Your task to perform on an android device: add a contact in the contacts app Image 0: 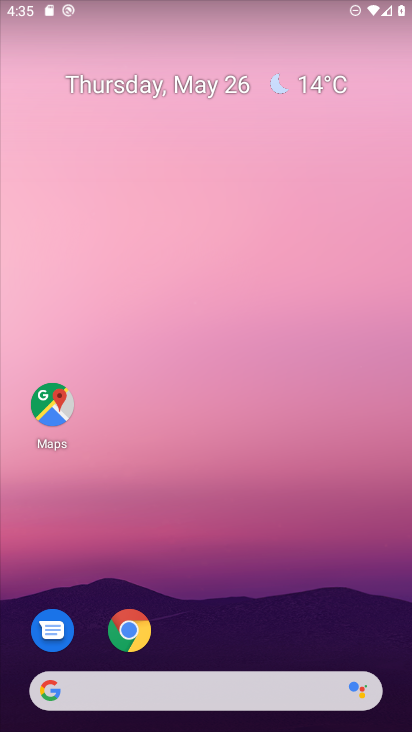
Step 0: drag from (257, 624) to (207, 231)
Your task to perform on an android device: add a contact in the contacts app Image 1: 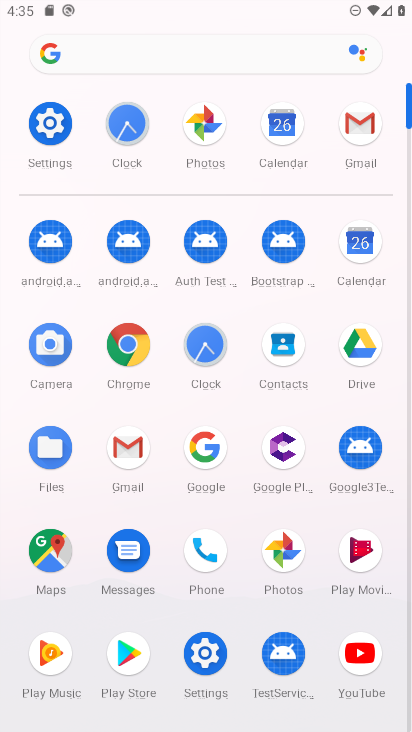
Step 1: click (283, 346)
Your task to perform on an android device: add a contact in the contacts app Image 2: 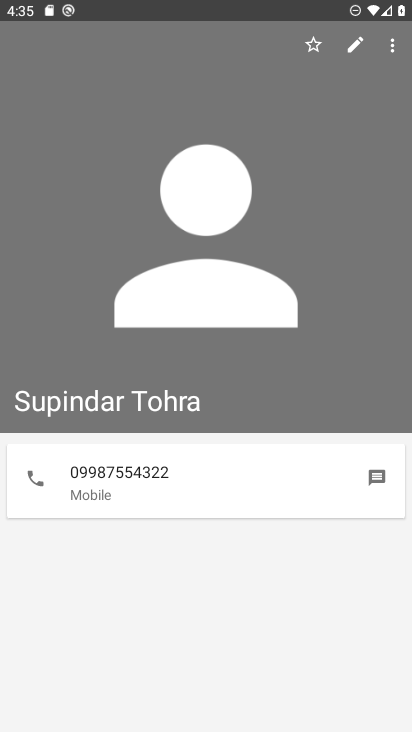
Step 2: press back button
Your task to perform on an android device: add a contact in the contacts app Image 3: 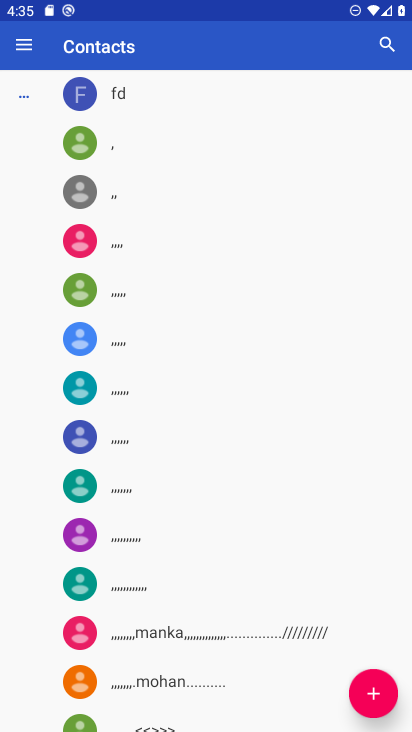
Step 3: click (375, 690)
Your task to perform on an android device: add a contact in the contacts app Image 4: 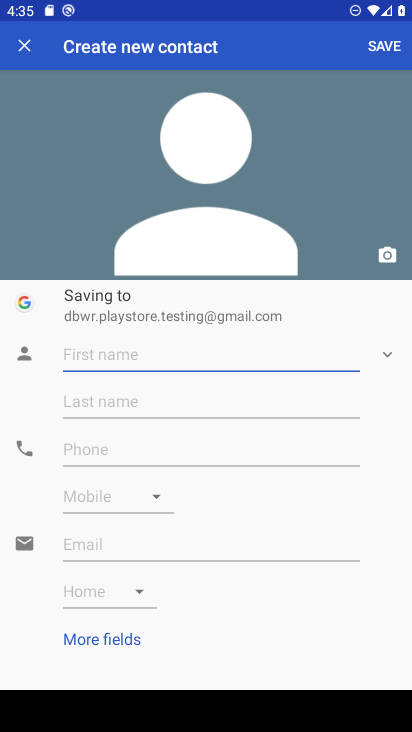
Step 4: click (184, 348)
Your task to perform on an android device: add a contact in the contacts app Image 5: 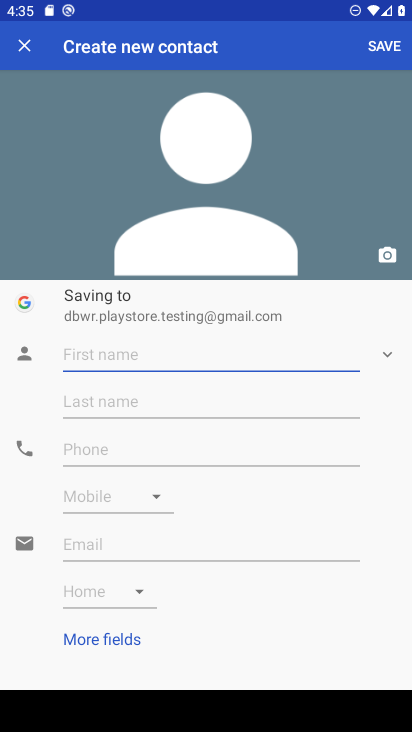
Step 5: type "Manisha"
Your task to perform on an android device: add a contact in the contacts app Image 6: 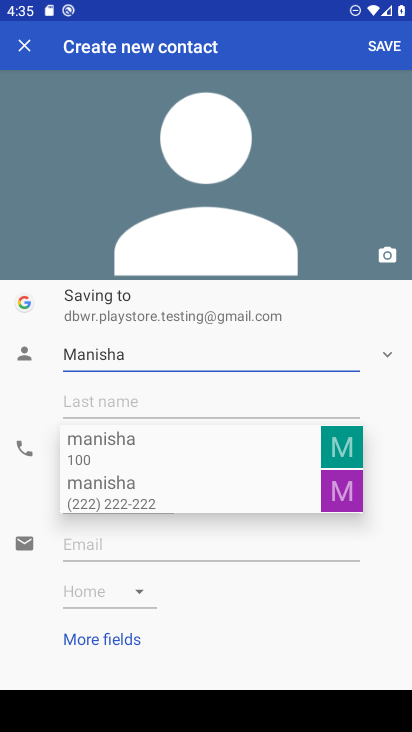
Step 6: click (202, 393)
Your task to perform on an android device: add a contact in the contacts app Image 7: 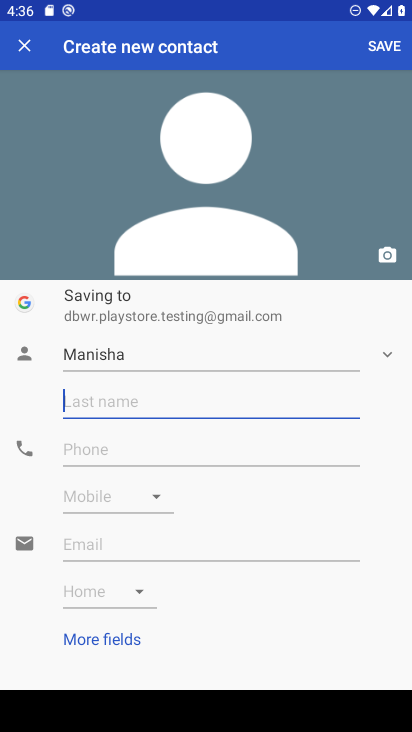
Step 7: type "Mehta"
Your task to perform on an android device: add a contact in the contacts app Image 8: 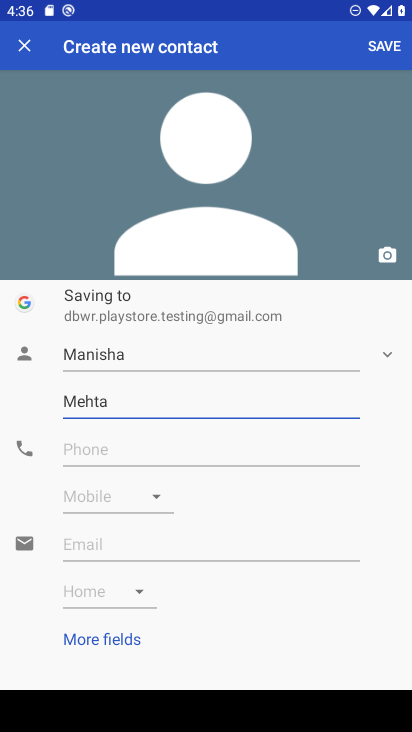
Step 8: click (162, 453)
Your task to perform on an android device: add a contact in the contacts app Image 9: 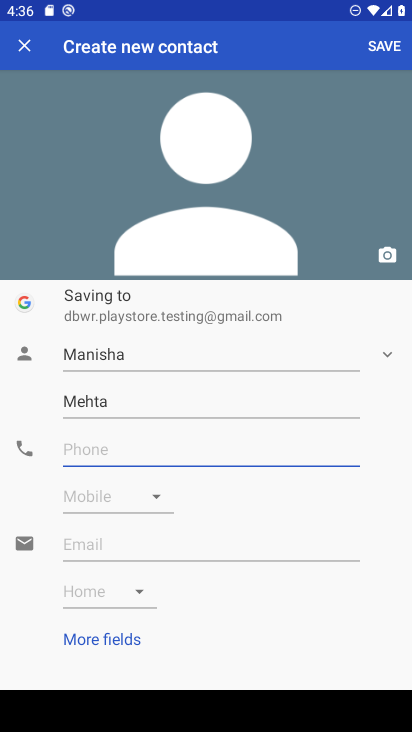
Step 9: type "09424015310"
Your task to perform on an android device: add a contact in the contacts app Image 10: 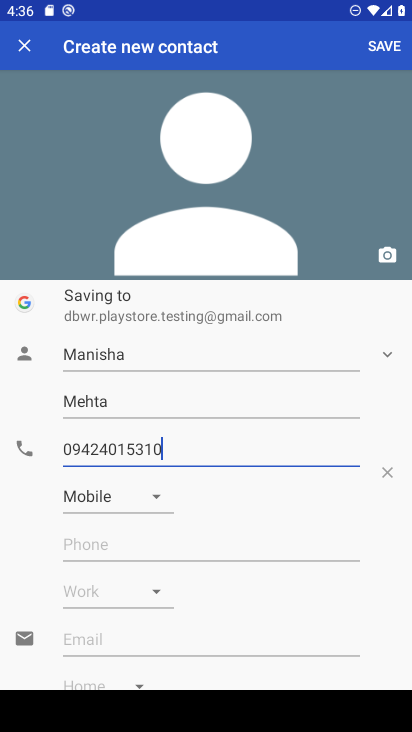
Step 10: click (381, 44)
Your task to perform on an android device: add a contact in the contacts app Image 11: 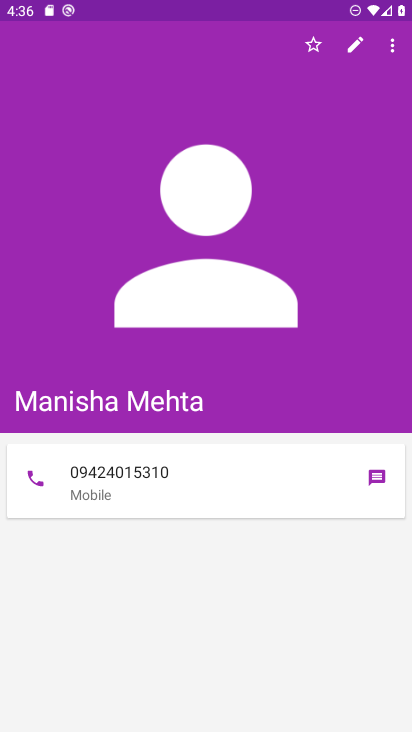
Step 11: task complete